Your task to perform on an android device: When is my next appointment? Image 0: 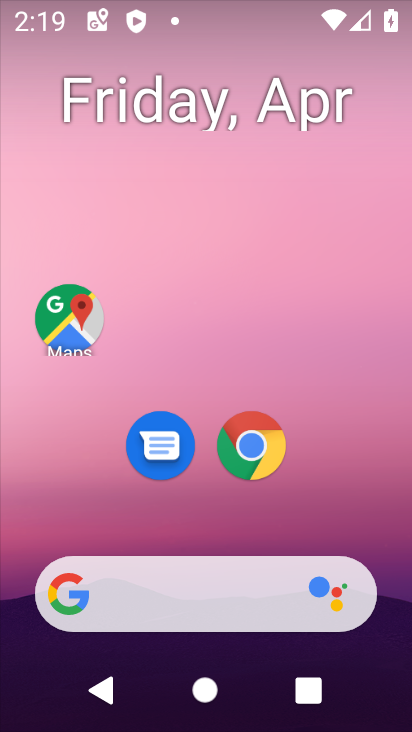
Step 0: drag from (327, 490) to (272, 47)
Your task to perform on an android device: When is my next appointment? Image 1: 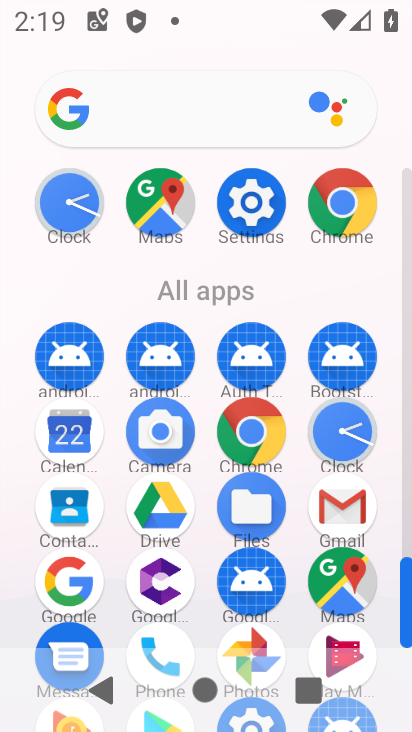
Step 1: click (74, 432)
Your task to perform on an android device: When is my next appointment? Image 2: 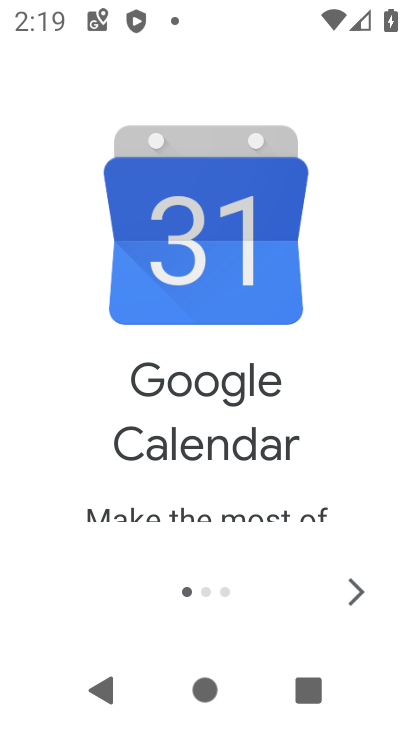
Step 2: click (361, 592)
Your task to perform on an android device: When is my next appointment? Image 3: 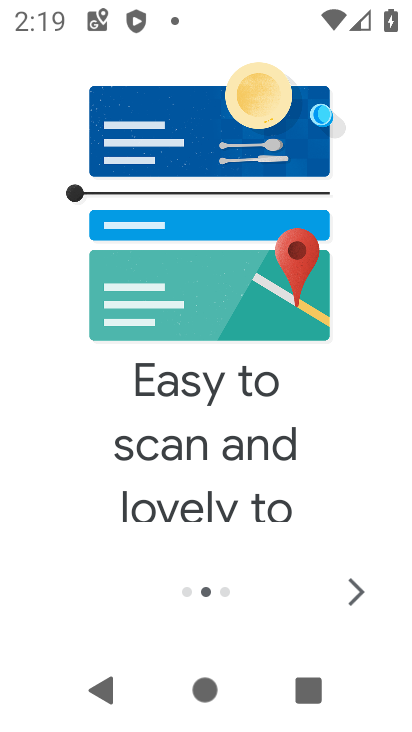
Step 3: click (361, 592)
Your task to perform on an android device: When is my next appointment? Image 4: 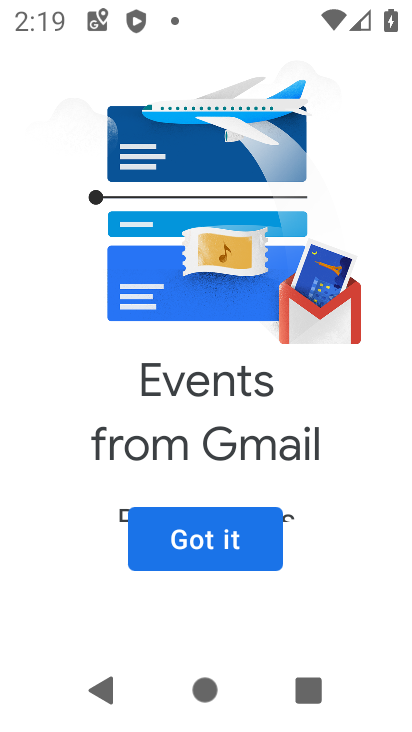
Step 4: click (204, 538)
Your task to perform on an android device: When is my next appointment? Image 5: 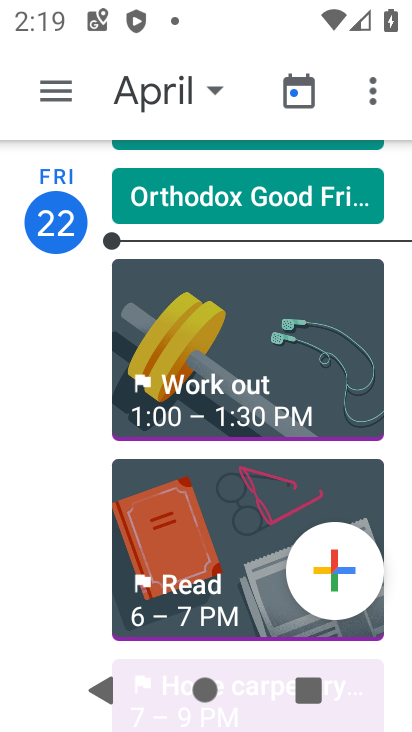
Step 5: click (208, 91)
Your task to perform on an android device: When is my next appointment? Image 6: 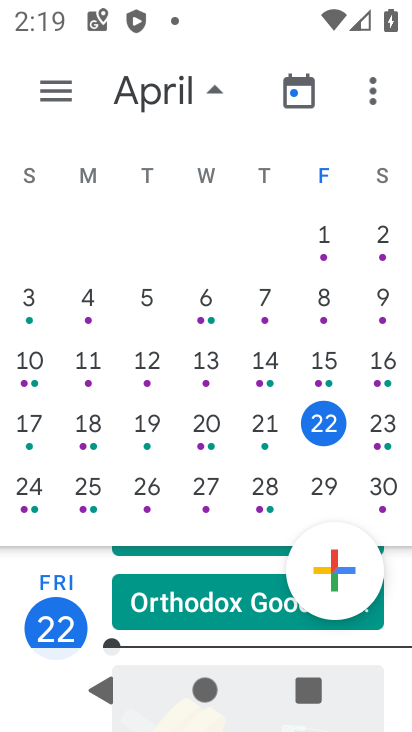
Step 6: click (85, 489)
Your task to perform on an android device: When is my next appointment? Image 7: 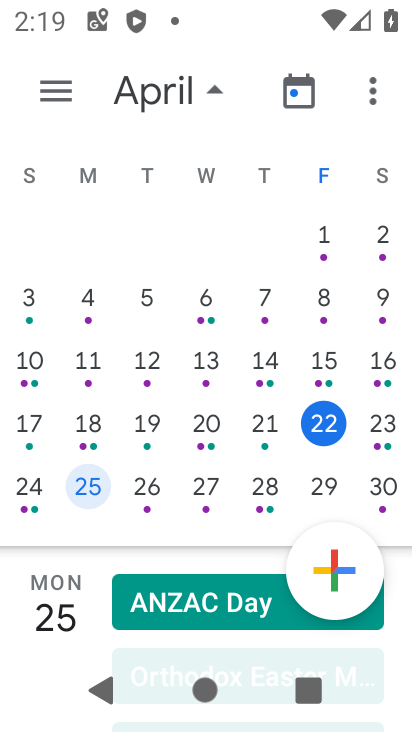
Step 7: task complete